Your task to perform on an android device: delete the emails in spam in the gmail app Image 0: 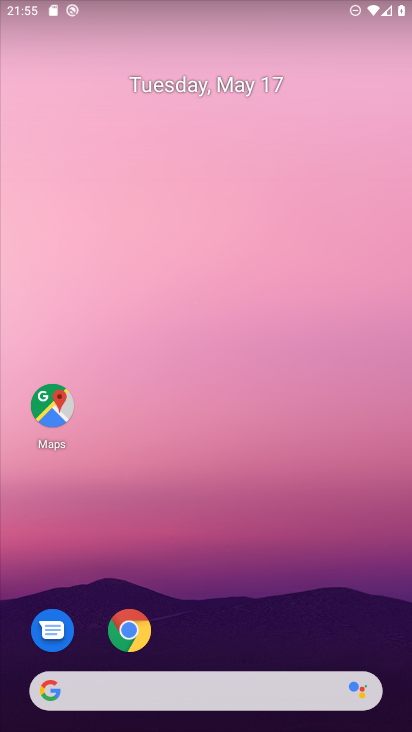
Step 0: drag from (363, 588) to (350, 164)
Your task to perform on an android device: delete the emails in spam in the gmail app Image 1: 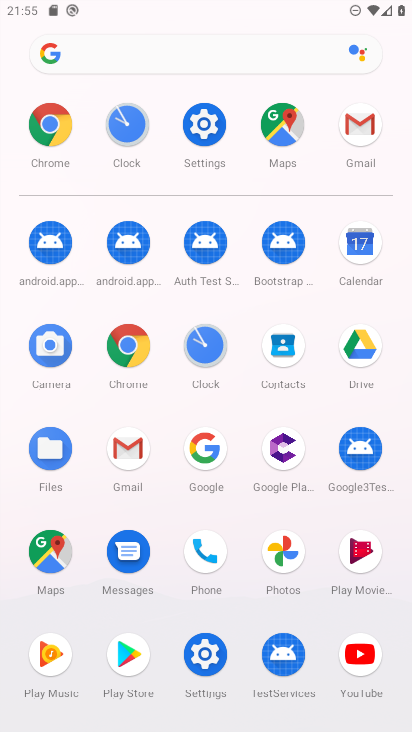
Step 1: click (143, 462)
Your task to perform on an android device: delete the emails in spam in the gmail app Image 2: 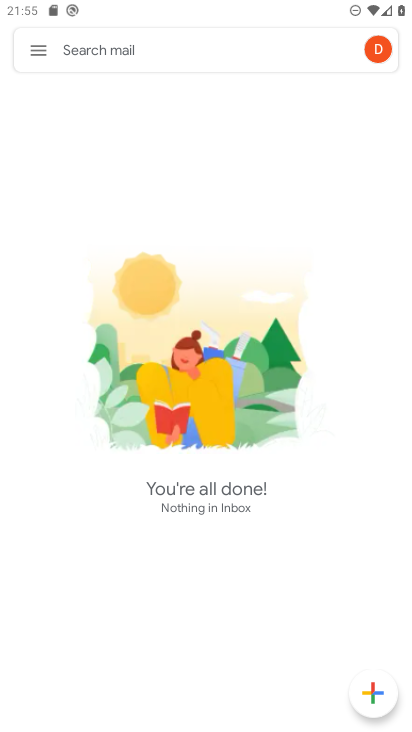
Step 2: click (41, 52)
Your task to perform on an android device: delete the emails in spam in the gmail app Image 3: 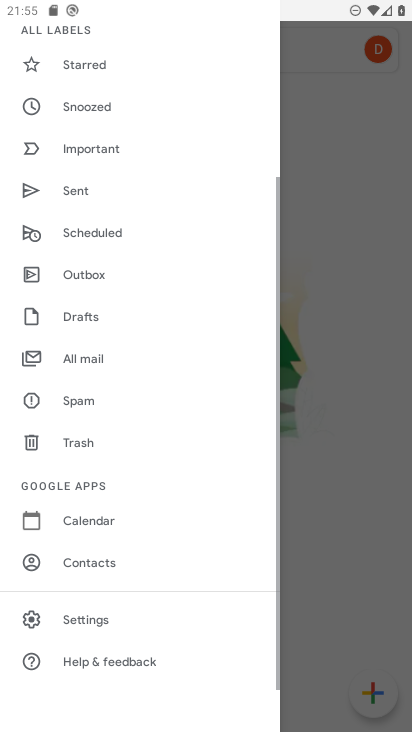
Step 3: drag from (186, 559) to (194, 410)
Your task to perform on an android device: delete the emails in spam in the gmail app Image 4: 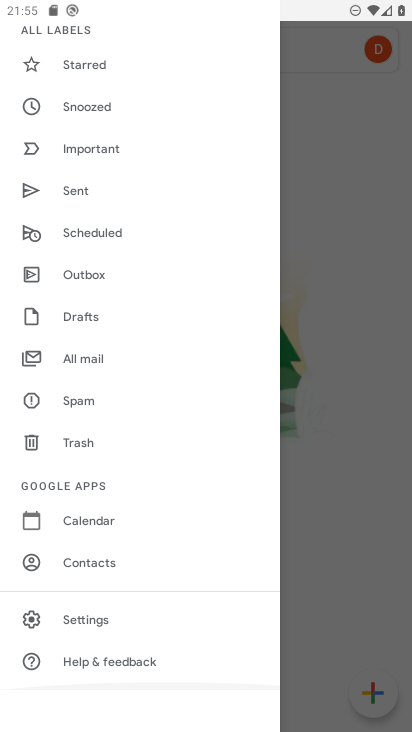
Step 4: drag from (192, 279) to (193, 462)
Your task to perform on an android device: delete the emails in spam in the gmail app Image 5: 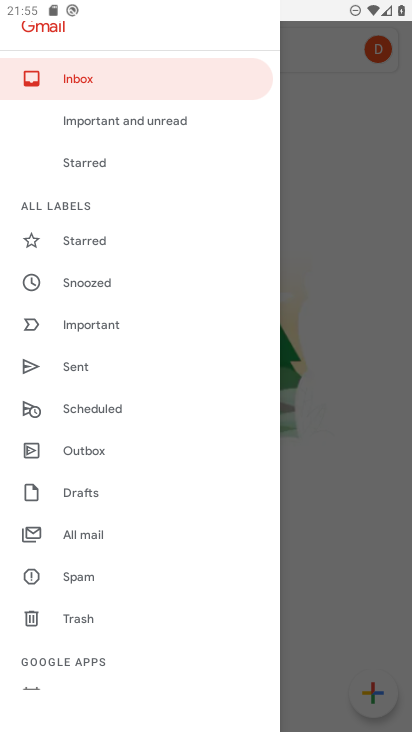
Step 5: drag from (194, 257) to (194, 530)
Your task to perform on an android device: delete the emails in spam in the gmail app Image 6: 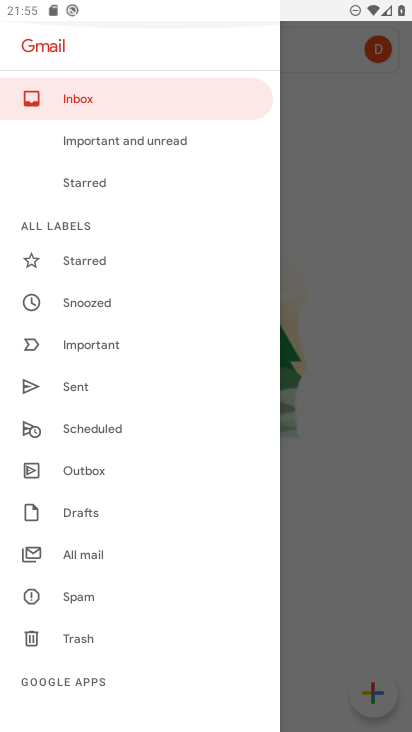
Step 6: drag from (186, 603) to (189, 395)
Your task to perform on an android device: delete the emails in spam in the gmail app Image 7: 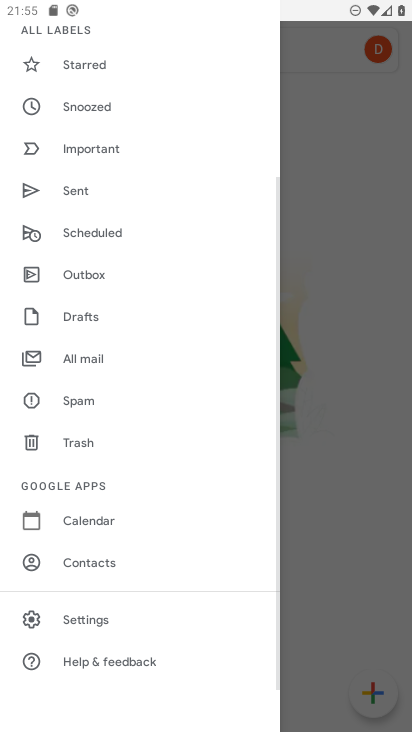
Step 7: drag from (194, 220) to (178, 503)
Your task to perform on an android device: delete the emails in spam in the gmail app Image 8: 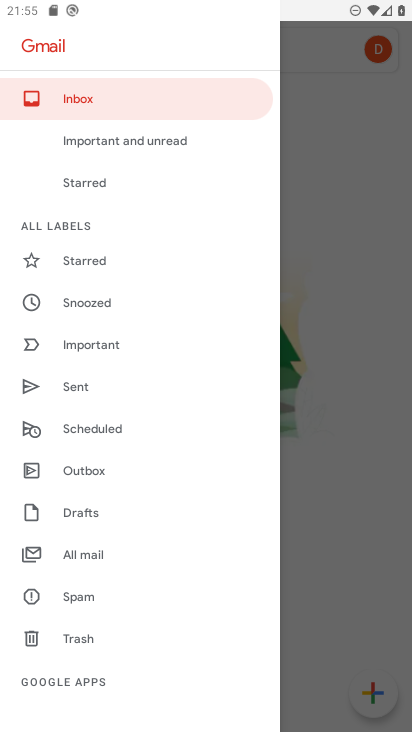
Step 8: click (115, 94)
Your task to perform on an android device: delete the emails in spam in the gmail app Image 9: 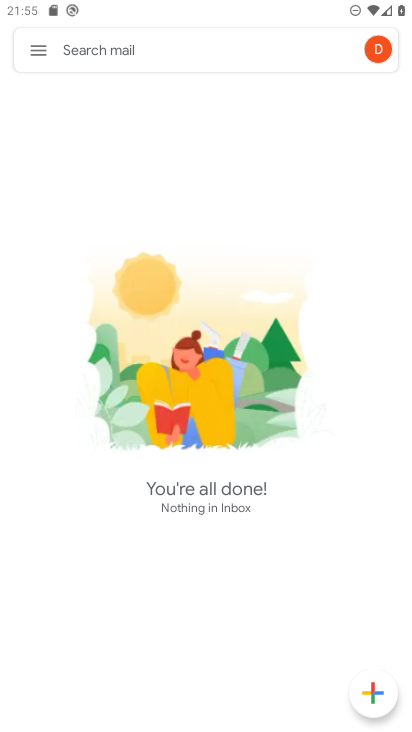
Step 9: task complete